Your task to perform on an android device: Go to ESPN.com Image 0: 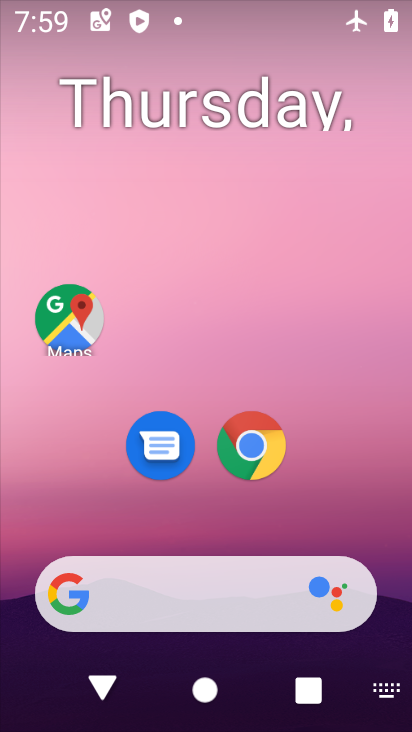
Step 0: drag from (394, 603) to (291, 46)
Your task to perform on an android device: Go to ESPN.com Image 1: 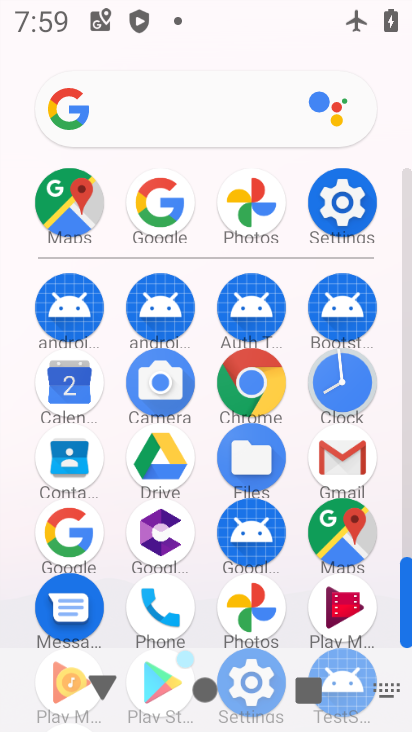
Step 1: click (84, 539)
Your task to perform on an android device: Go to ESPN.com Image 2: 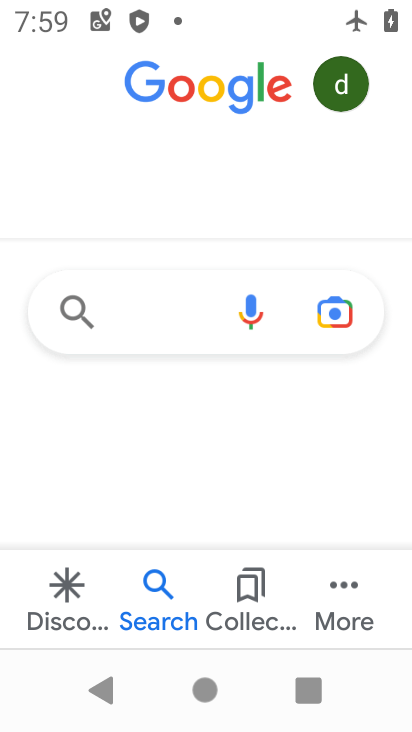
Step 2: click (170, 308)
Your task to perform on an android device: Go to ESPN.com Image 3: 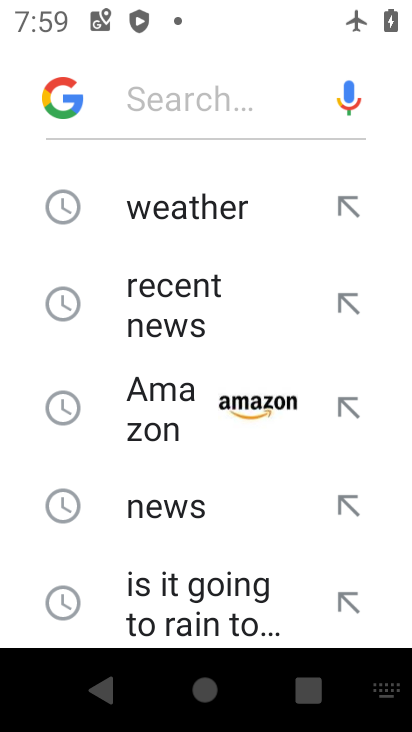
Step 3: type "espn.com"
Your task to perform on an android device: Go to ESPN.com Image 4: 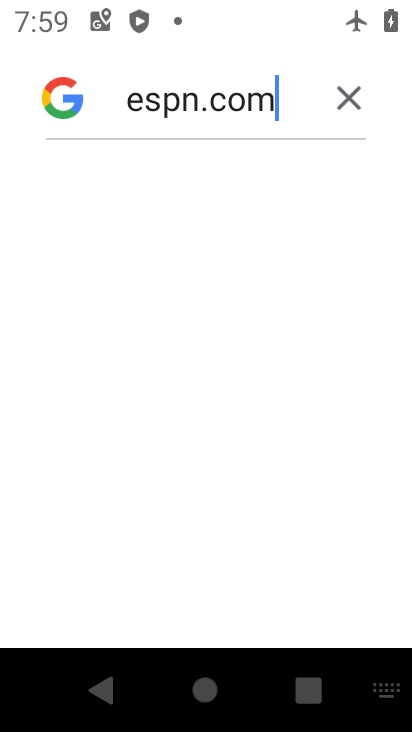
Step 4: task complete